Your task to perform on an android device: check storage Image 0: 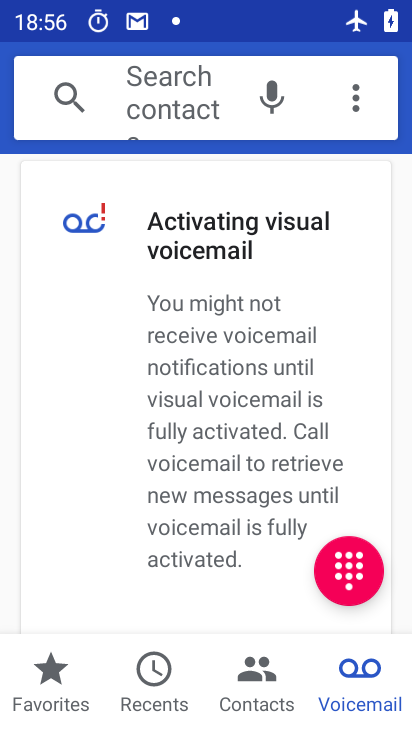
Step 0: press home button
Your task to perform on an android device: check storage Image 1: 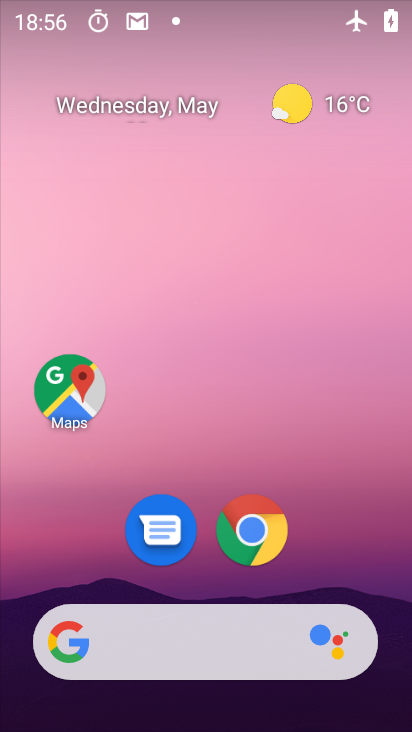
Step 1: drag from (199, 591) to (246, 274)
Your task to perform on an android device: check storage Image 2: 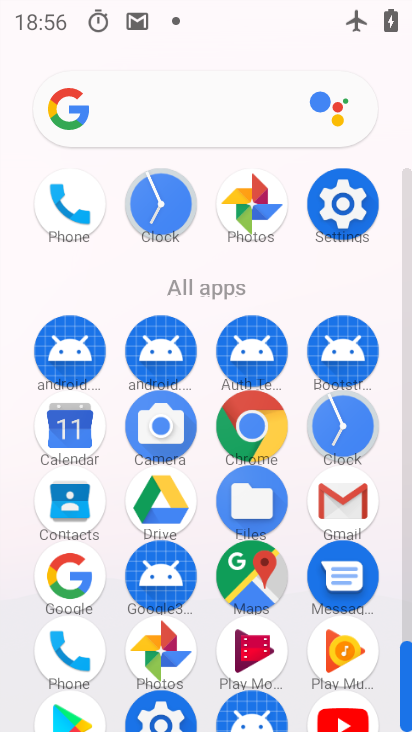
Step 2: click (340, 207)
Your task to perform on an android device: check storage Image 3: 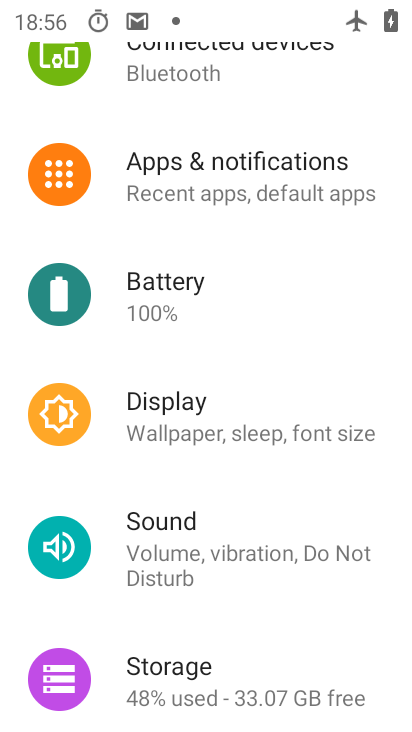
Step 3: click (182, 679)
Your task to perform on an android device: check storage Image 4: 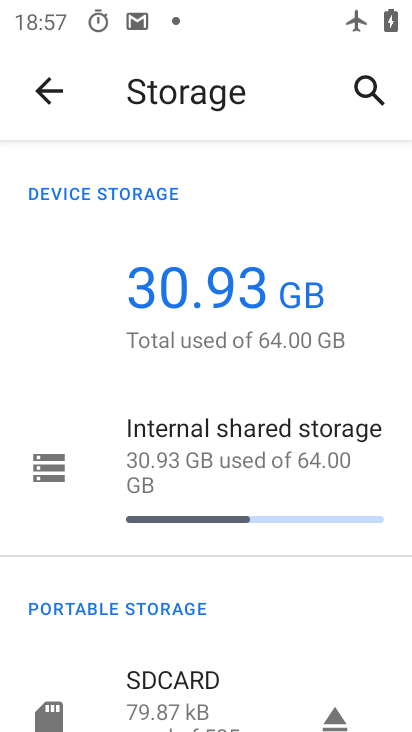
Step 4: task complete